Your task to perform on an android device: Go to network settings Image 0: 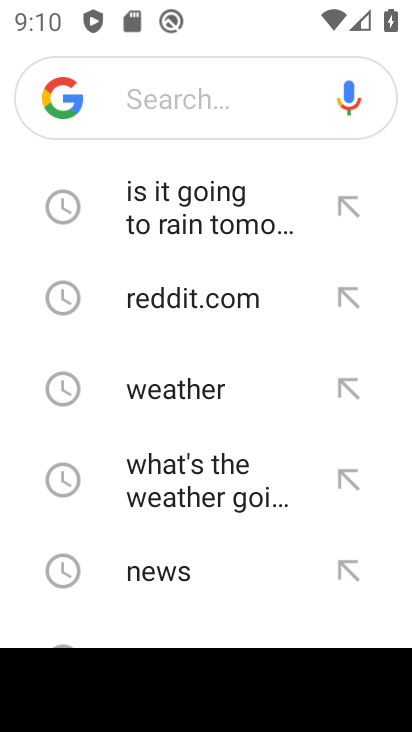
Step 0: press home button
Your task to perform on an android device: Go to network settings Image 1: 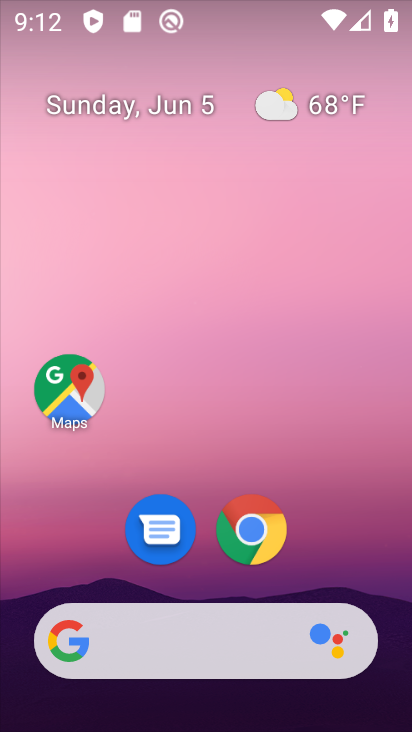
Step 1: drag from (275, 230) to (356, 2)
Your task to perform on an android device: Go to network settings Image 2: 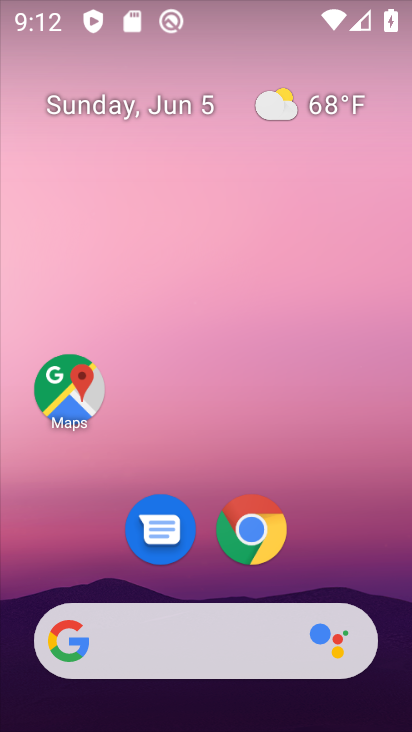
Step 2: drag from (240, 697) to (383, 0)
Your task to perform on an android device: Go to network settings Image 3: 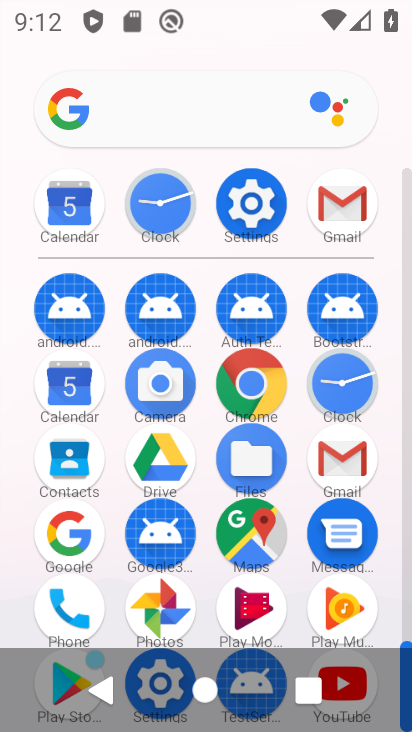
Step 3: click (247, 203)
Your task to perform on an android device: Go to network settings Image 4: 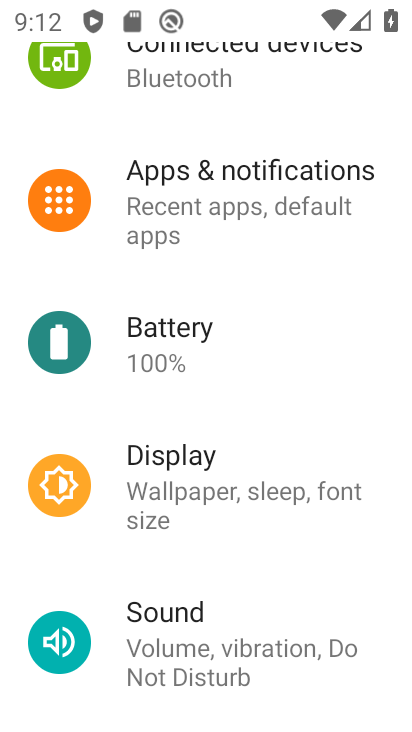
Step 4: drag from (320, 114) to (244, 712)
Your task to perform on an android device: Go to network settings Image 5: 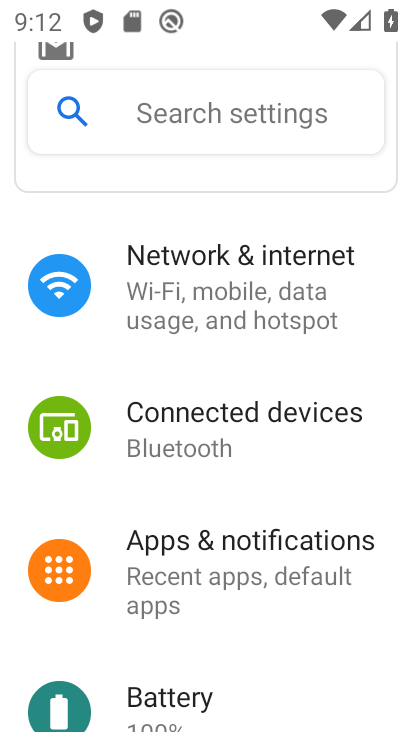
Step 5: click (232, 319)
Your task to perform on an android device: Go to network settings Image 6: 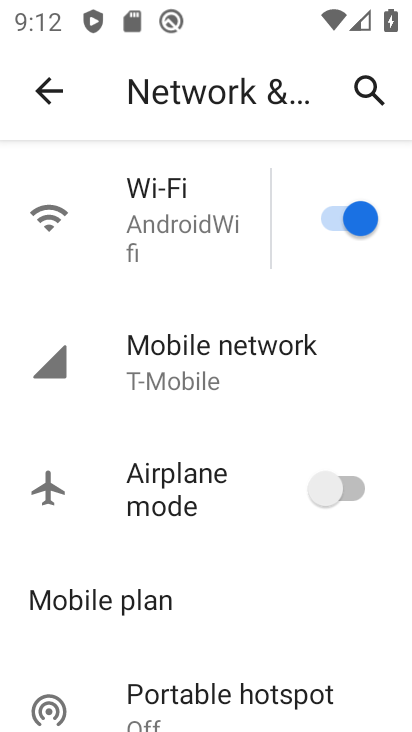
Step 6: task complete